Your task to perform on an android device: turn off priority inbox in the gmail app Image 0: 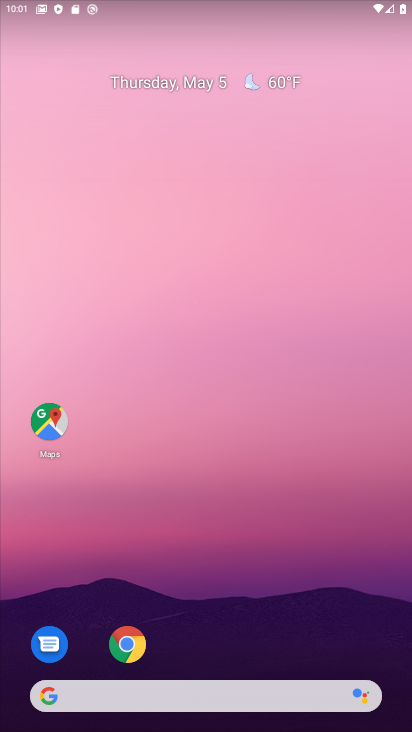
Step 0: drag from (378, 611) to (371, 156)
Your task to perform on an android device: turn off priority inbox in the gmail app Image 1: 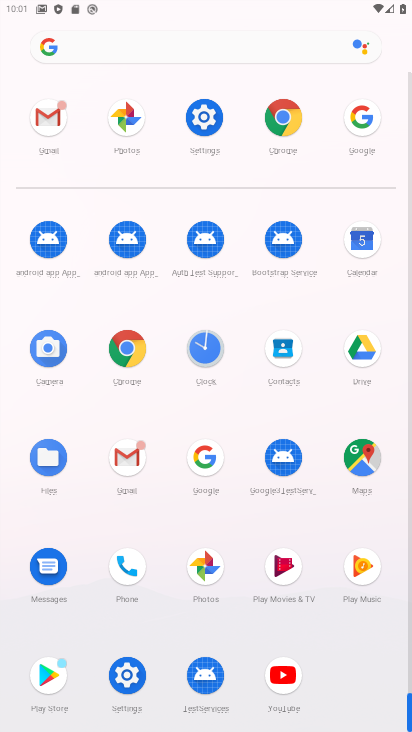
Step 1: click (130, 461)
Your task to perform on an android device: turn off priority inbox in the gmail app Image 2: 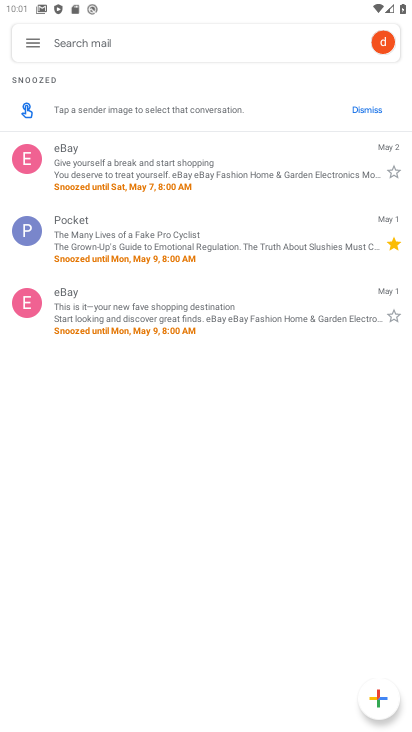
Step 2: click (22, 46)
Your task to perform on an android device: turn off priority inbox in the gmail app Image 3: 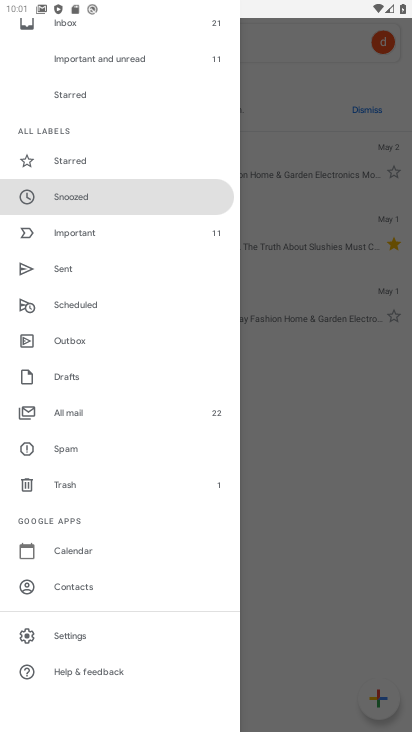
Step 3: drag from (165, 675) to (160, 355)
Your task to perform on an android device: turn off priority inbox in the gmail app Image 4: 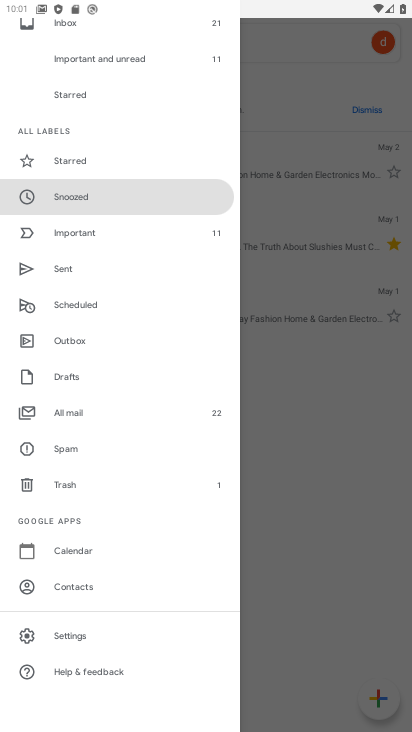
Step 4: click (97, 631)
Your task to perform on an android device: turn off priority inbox in the gmail app Image 5: 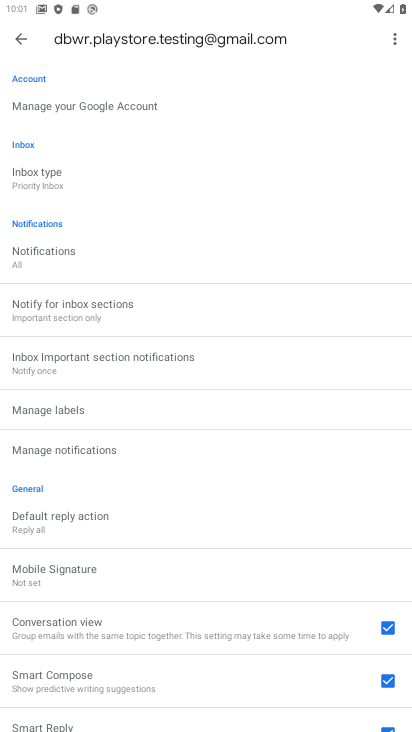
Step 5: click (32, 178)
Your task to perform on an android device: turn off priority inbox in the gmail app Image 6: 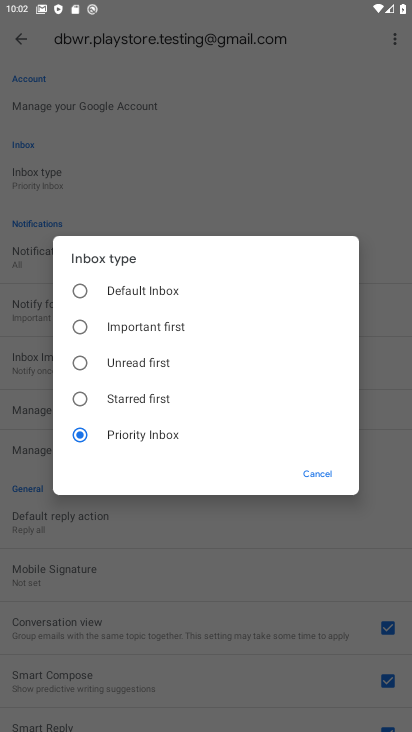
Step 6: click (78, 286)
Your task to perform on an android device: turn off priority inbox in the gmail app Image 7: 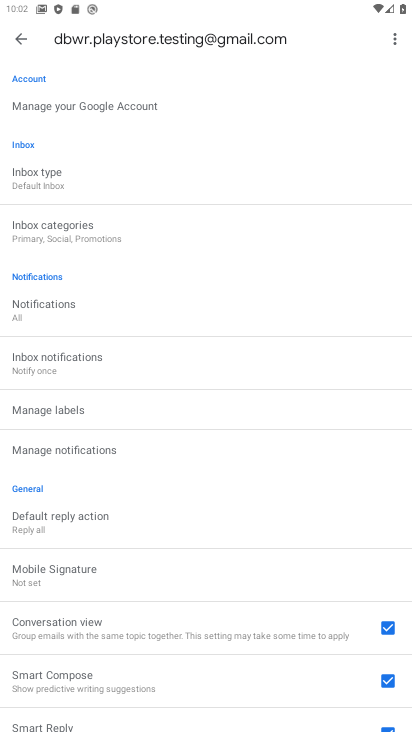
Step 7: task complete